Your task to perform on an android device: When is my next appointment? Image 0: 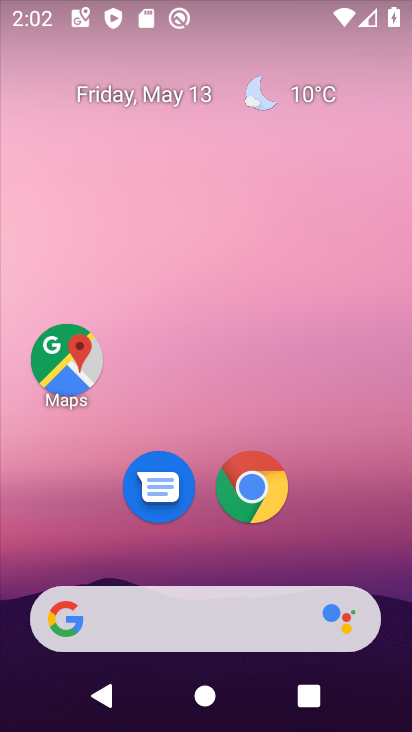
Step 0: drag from (207, 531) to (271, 180)
Your task to perform on an android device: When is my next appointment? Image 1: 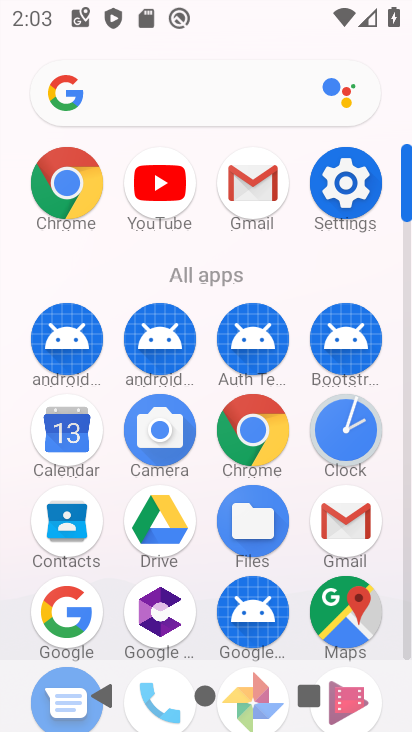
Step 1: click (63, 430)
Your task to perform on an android device: When is my next appointment? Image 2: 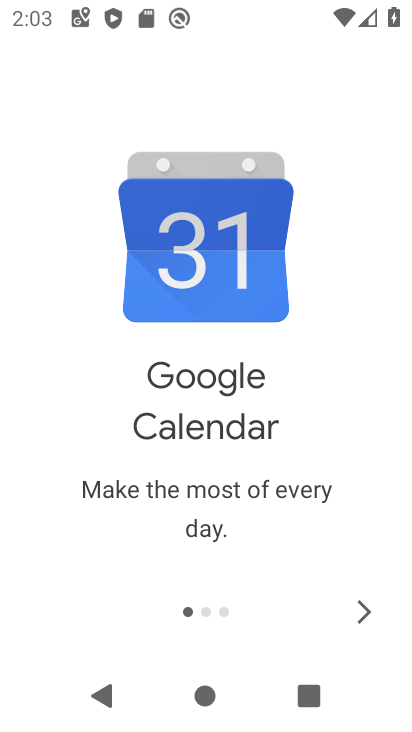
Step 2: click (367, 606)
Your task to perform on an android device: When is my next appointment? Image 3: 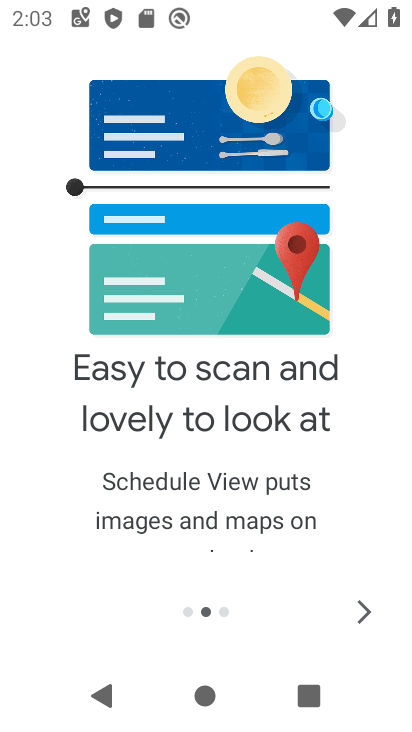
Step 3: click (358, 611)
Your task to perform on an android device: When is my next appointment? Image 4: 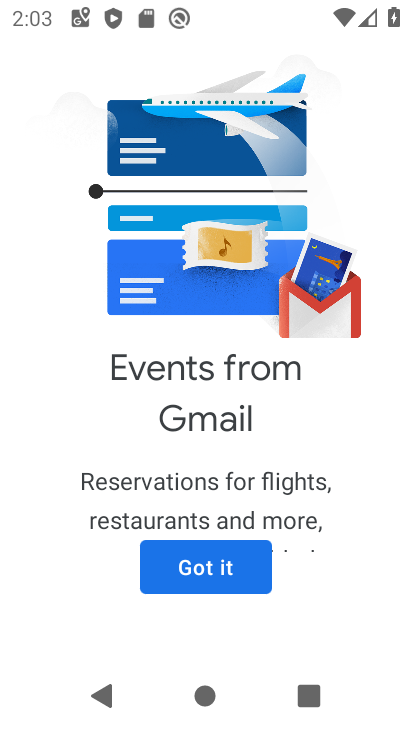
Step 4: click (230, 575)
Your task to perform on an android device: When is my next appointment? Image 5: 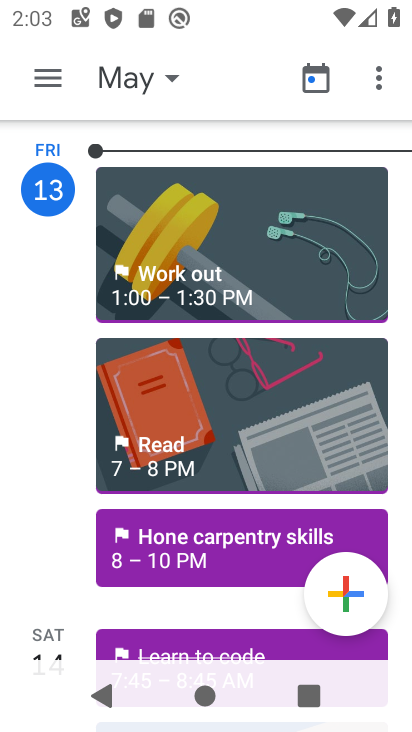
Step 5: click (165, 80)
Your task to perform on an android device: When is my next appointment? Image 6: 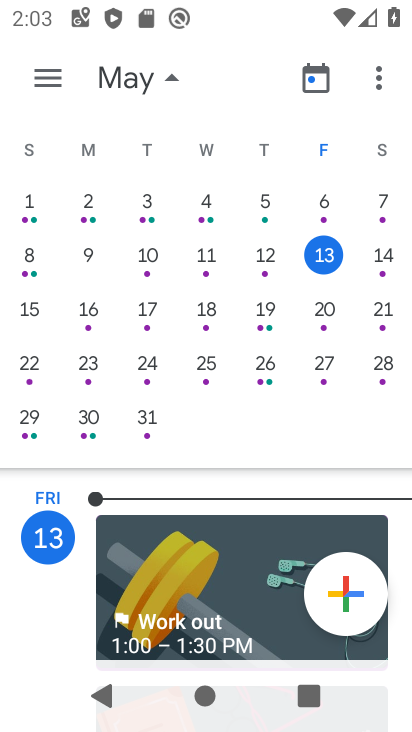
Step 6: click (384, 255)
Your task to perform on an android device: When is my next appointment? Image 7: 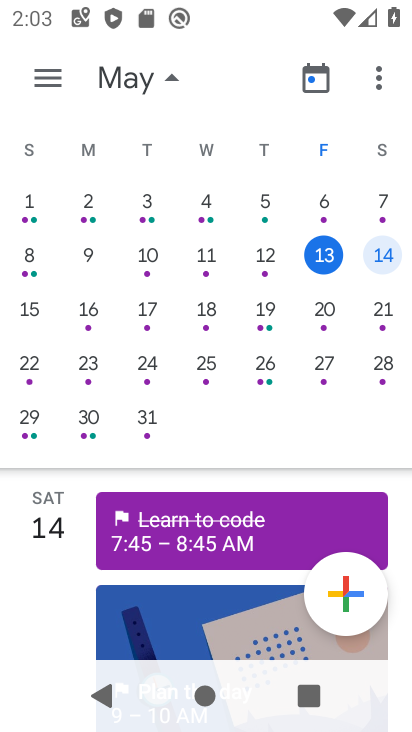
Step 7: click (21, 314)
Your task to perform on an android device: When is my next appointment? Image 8: 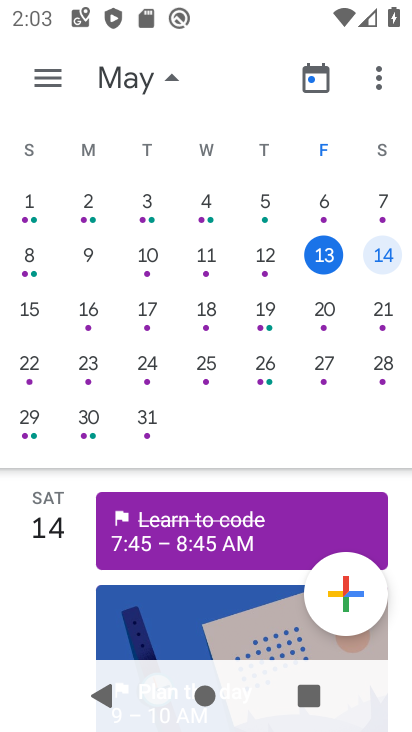
Step 8: click (91, 314)
Your task to perform on an android device: When is my next appointment? Image 9: 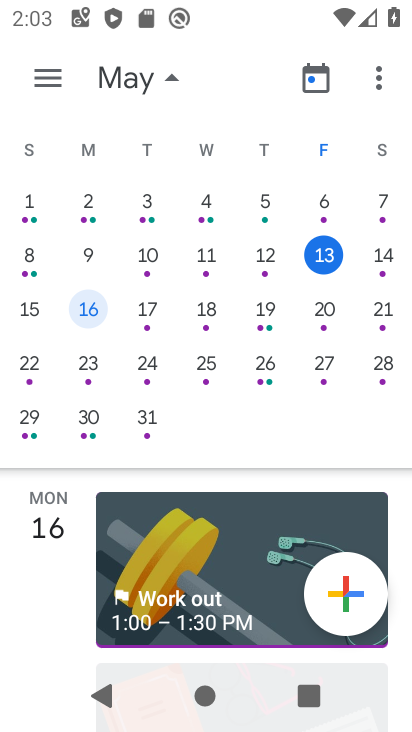
Step 9: click (149, 311)
Your task to perform on an android device: When is my next appointment? Image 10: 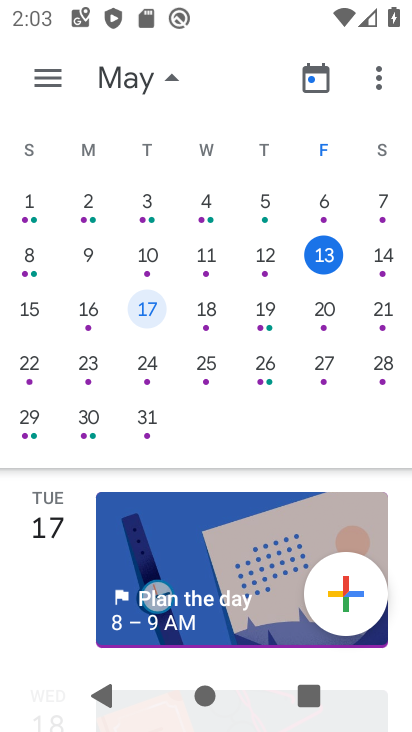
Step 10: click (197, 314)
Your task to perform on an android device: When is my next appointment? Image 11: 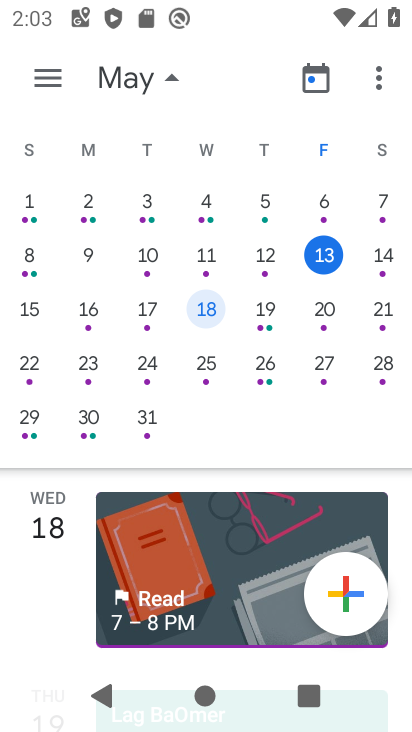
Step 11: click (262, 325)
Your task to perform on an android device: When is my next appointment? Image 12: 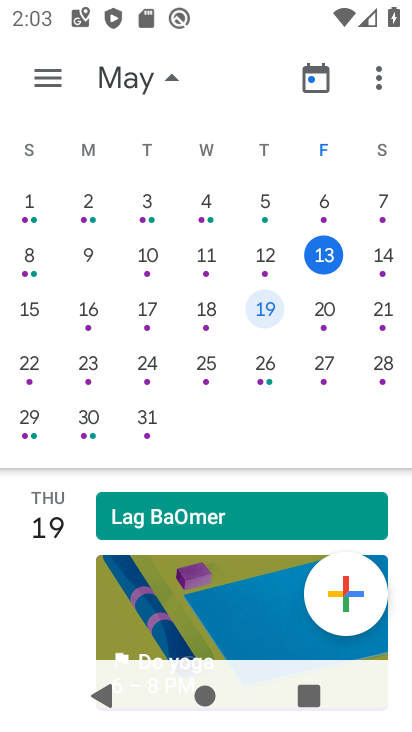
Step 12: click (320, 325)
Your task to perform on an android device: When is my next appointment? Image 13: 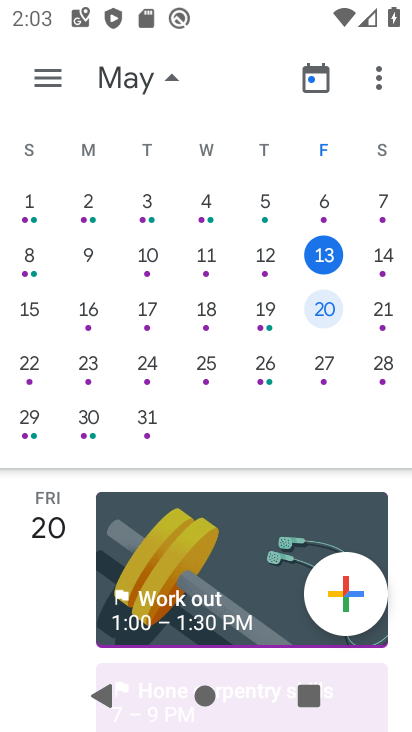
Step 13: click (386, 322)
Your task to perform on an android device: When is my next appointment? Image 14: 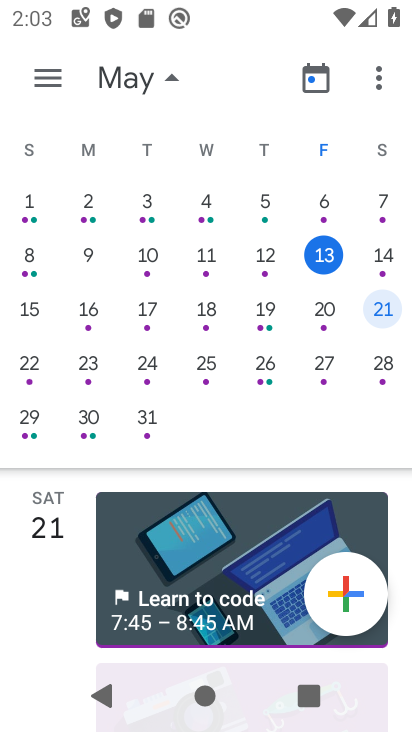
Step 14: click (28, 368)
Your task to perform on an android device: When is my next appointment? Image 15: 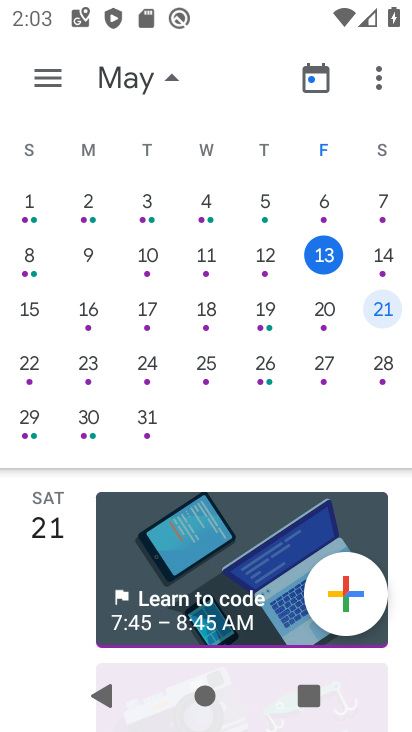
Step 15: click (91, 370)
Your task to perform on an android device: When is my next appointment? Image 16: 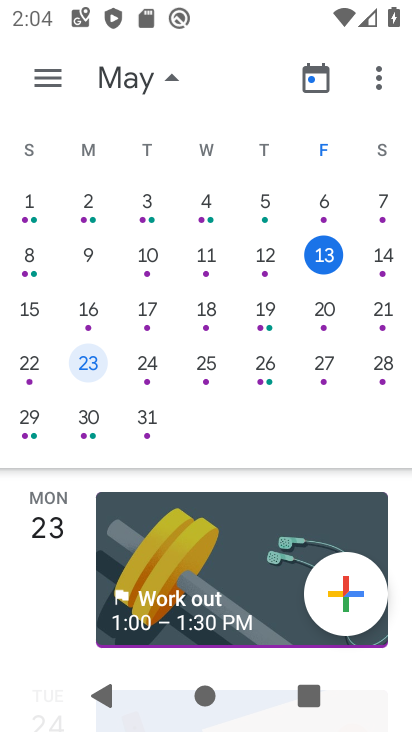
Step 16: click (148, 368)
Your task to perform on an android device: When is my next appointment? Image 17: 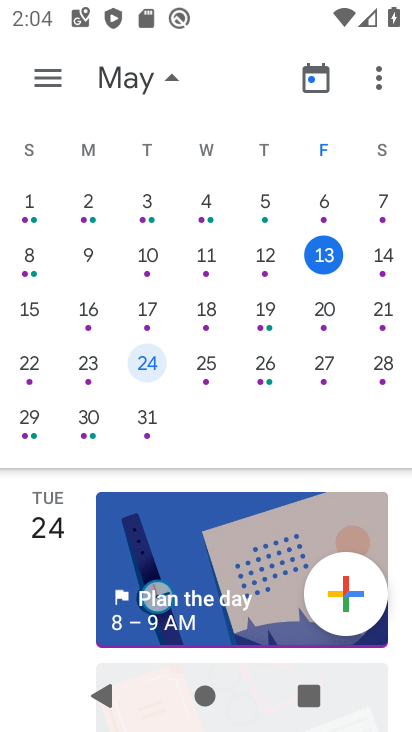
Step 17: click (203, 371)
Your task to perform on an android device: When is my next appointment? Image 18: 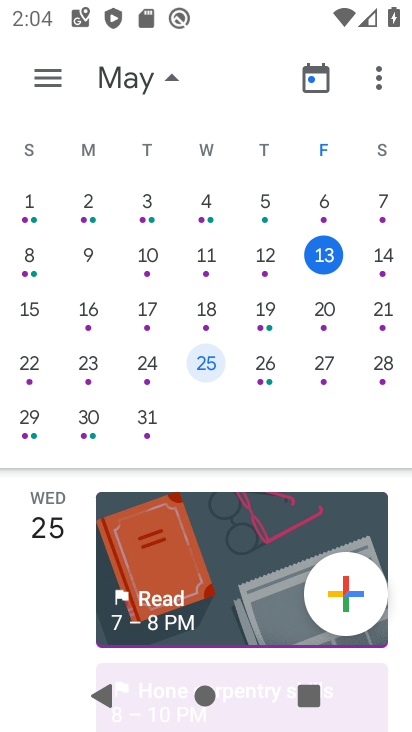
Step 18: click (253, 375)
Your task to perform on an android device: When is my next appointment? Image 19: 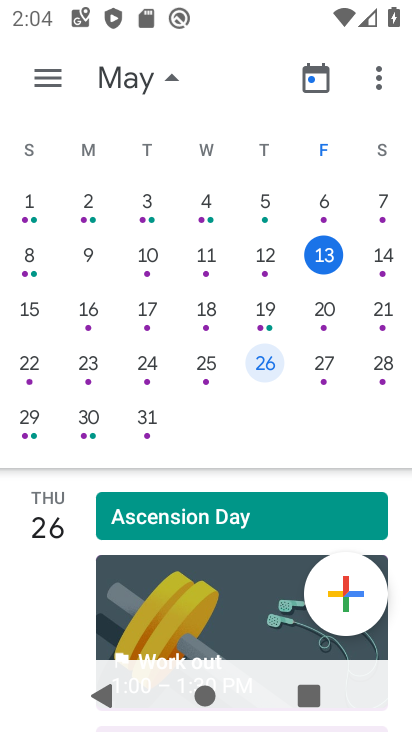
Step 19: click (327, 372)
Your task to perform on an android device: When is my next appointment? Image 20: 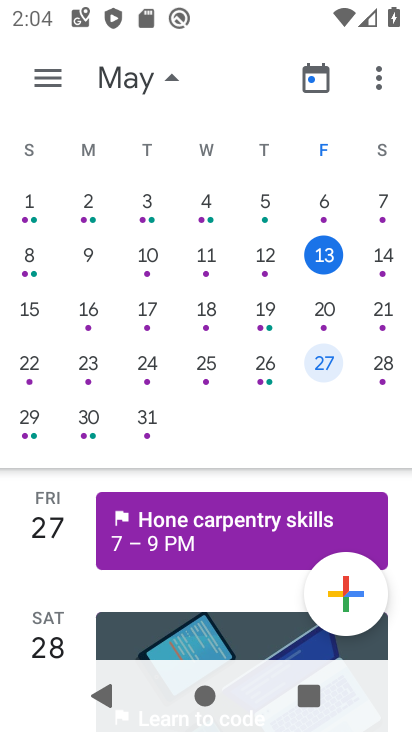
Step 20: click (379, 376)
Your task to perform on an android device: When is my next appointment? Image 21: 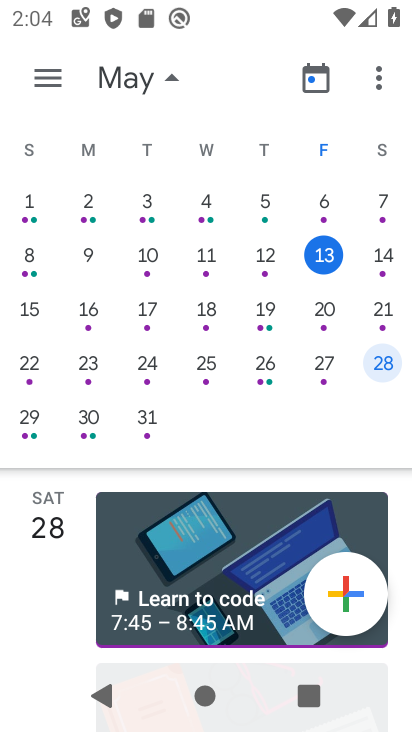
Step 21: click (36, 422)
Your task to perform on an android device: When is my next appointment? Image 22: 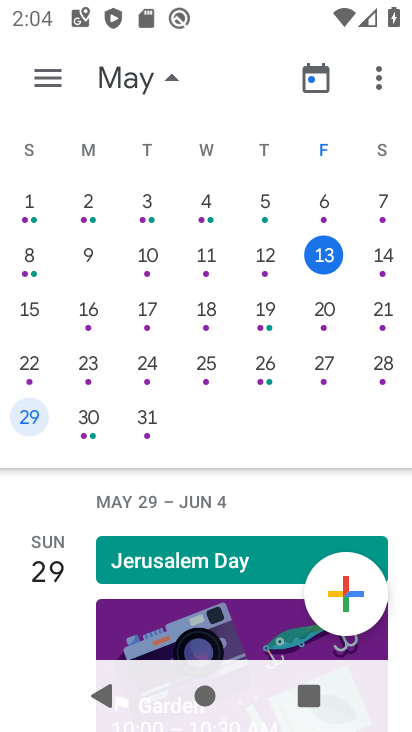
Step 22: click (93, 419)
Your task to perform on an android device: When is my next appointment? Image 23: 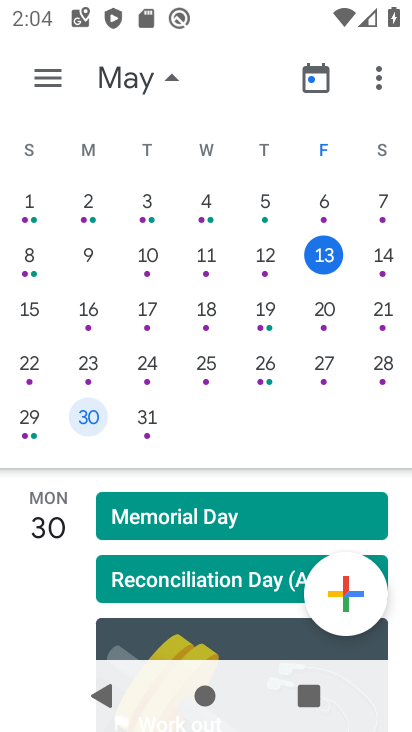
Step 23: click (143, 422)
Your task to perform on an android device: When is my next appointment? Image 24: 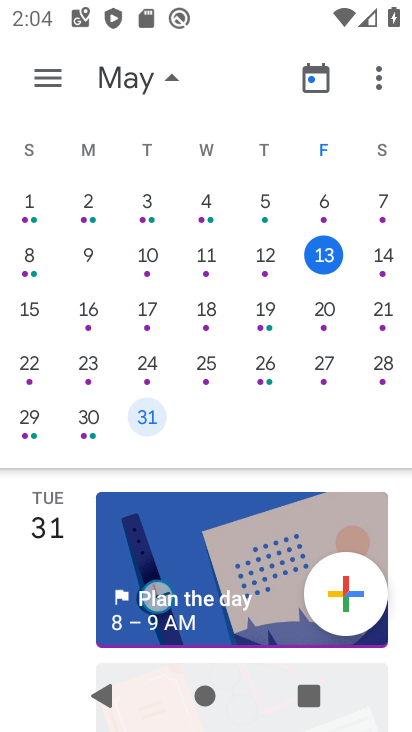
Step 24: task complete